Your task to perform on an android device: Show the shopping cart on amazon. Add "alienware area 51" to the cart on amazon, then select checkout. Image 0: 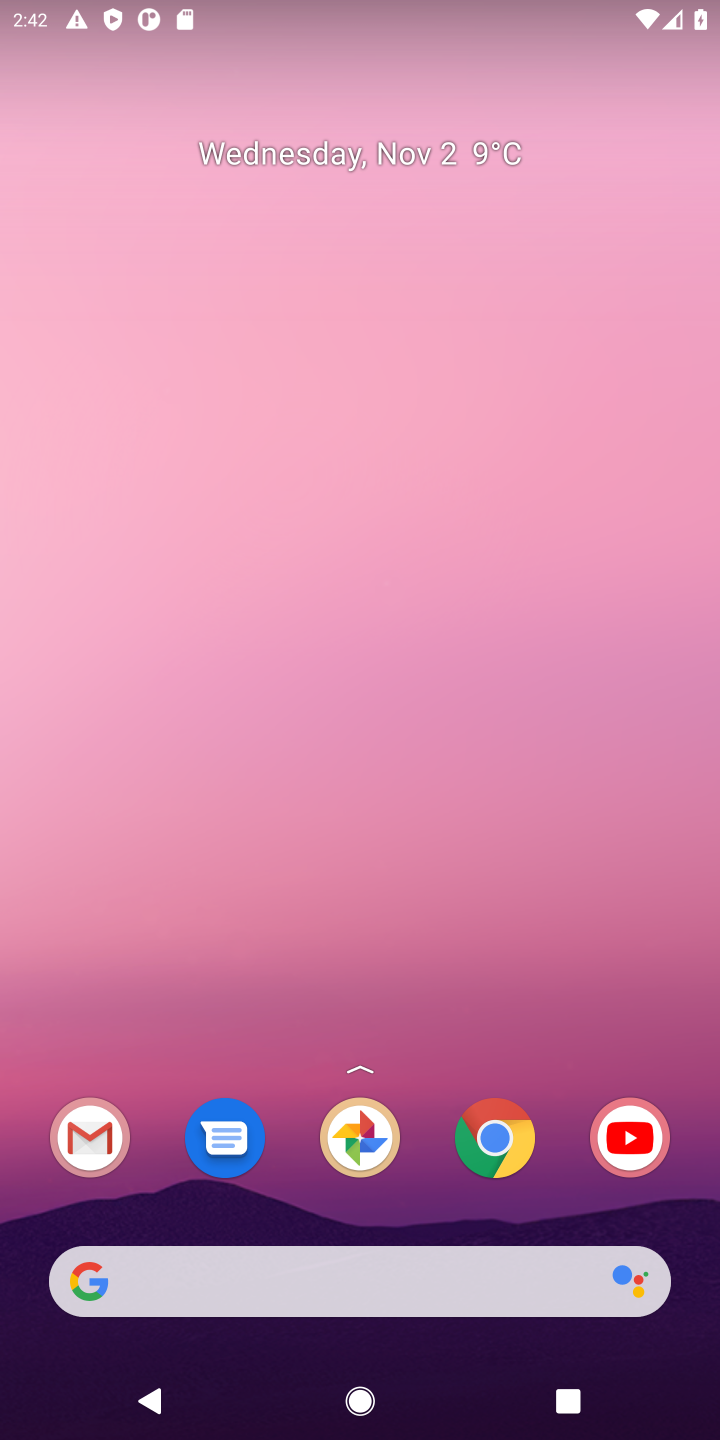
Step 0: click (501, 1147)
Your task to perform on an android device: Show the shopping cart on amazon. Add "alienware area 51" to the cart on amazon, then select checkout. Image 1: 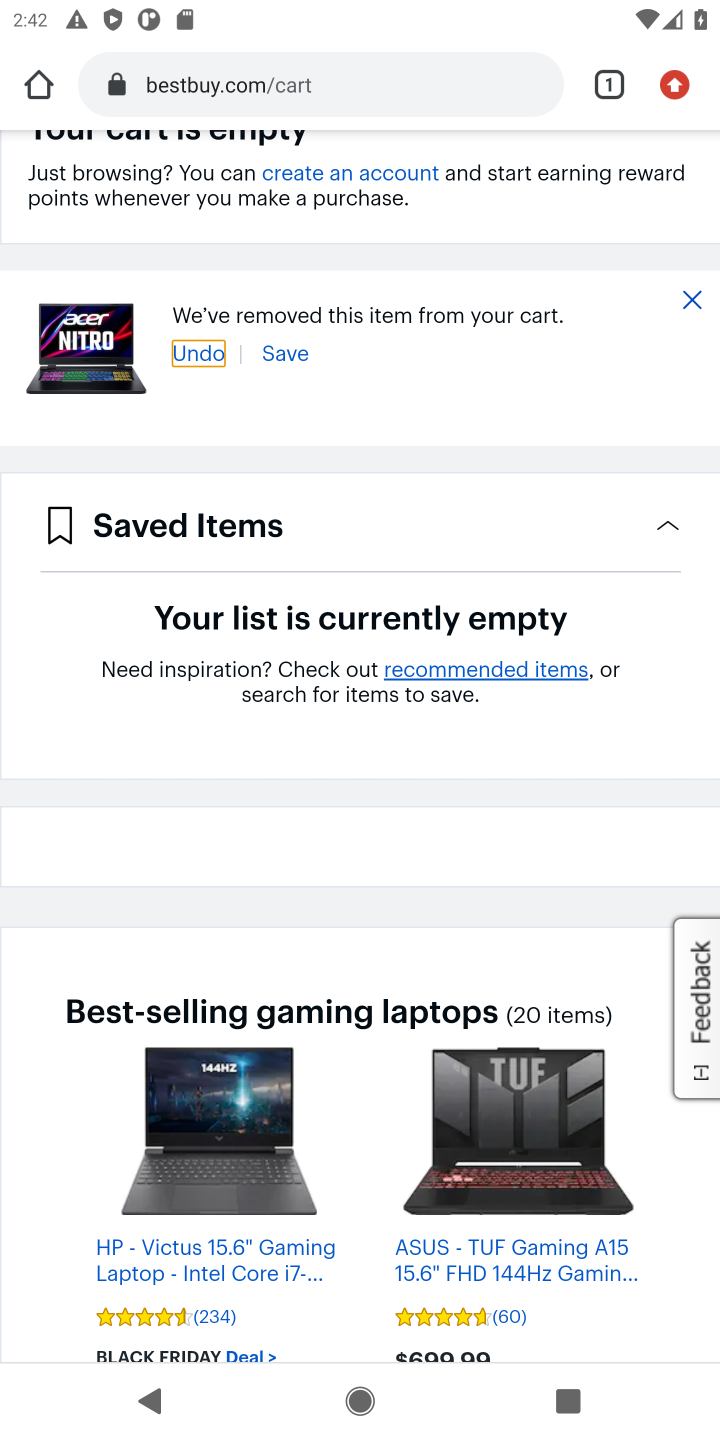
Step 1: click (300, 86)
Your task to perform on an android device: Show the shopping cart on amazon. Add "alienware area 51" to the cart on amazon, then select checkout. Image 2: 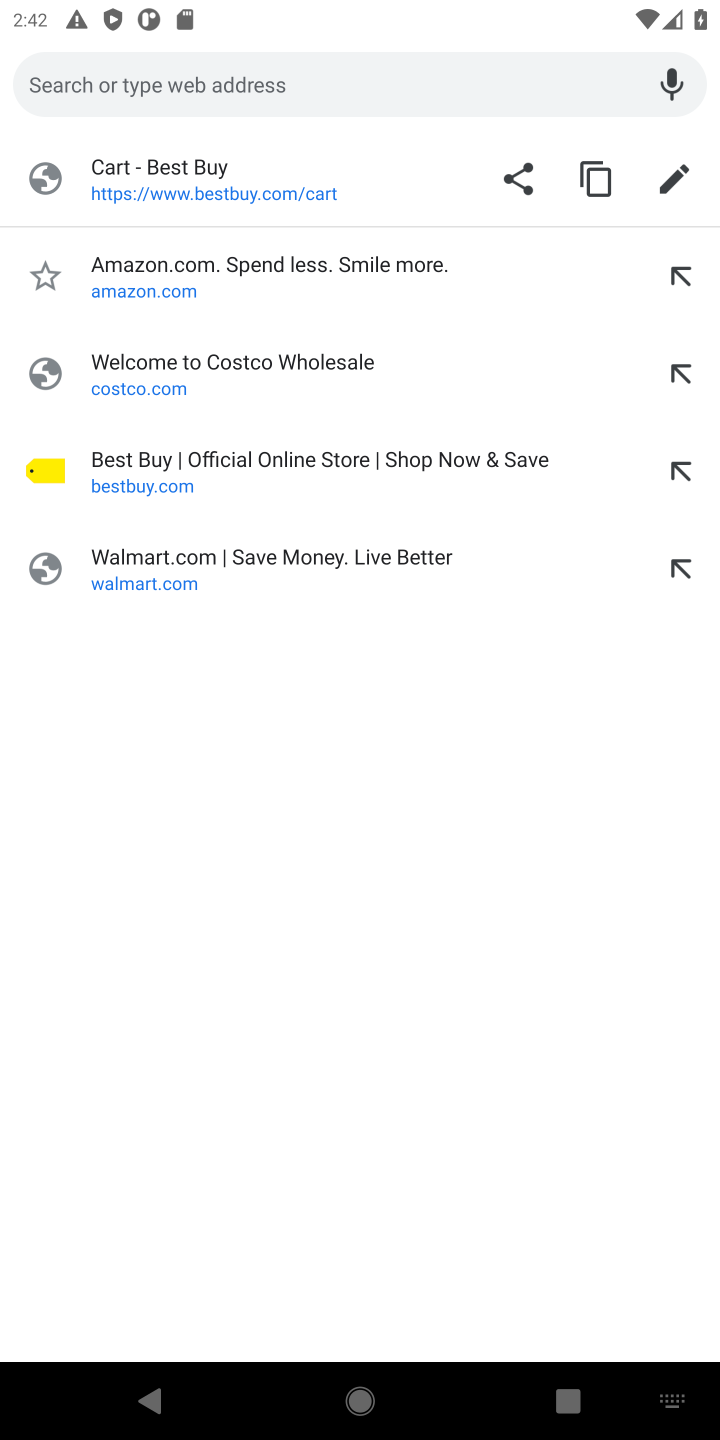
Step 2: type "amazon"
Your task to perform on an android device: Show the shopping cart on amazon. Add "alienware area 51" to the cart on amazon, then select checkout. Image 3: 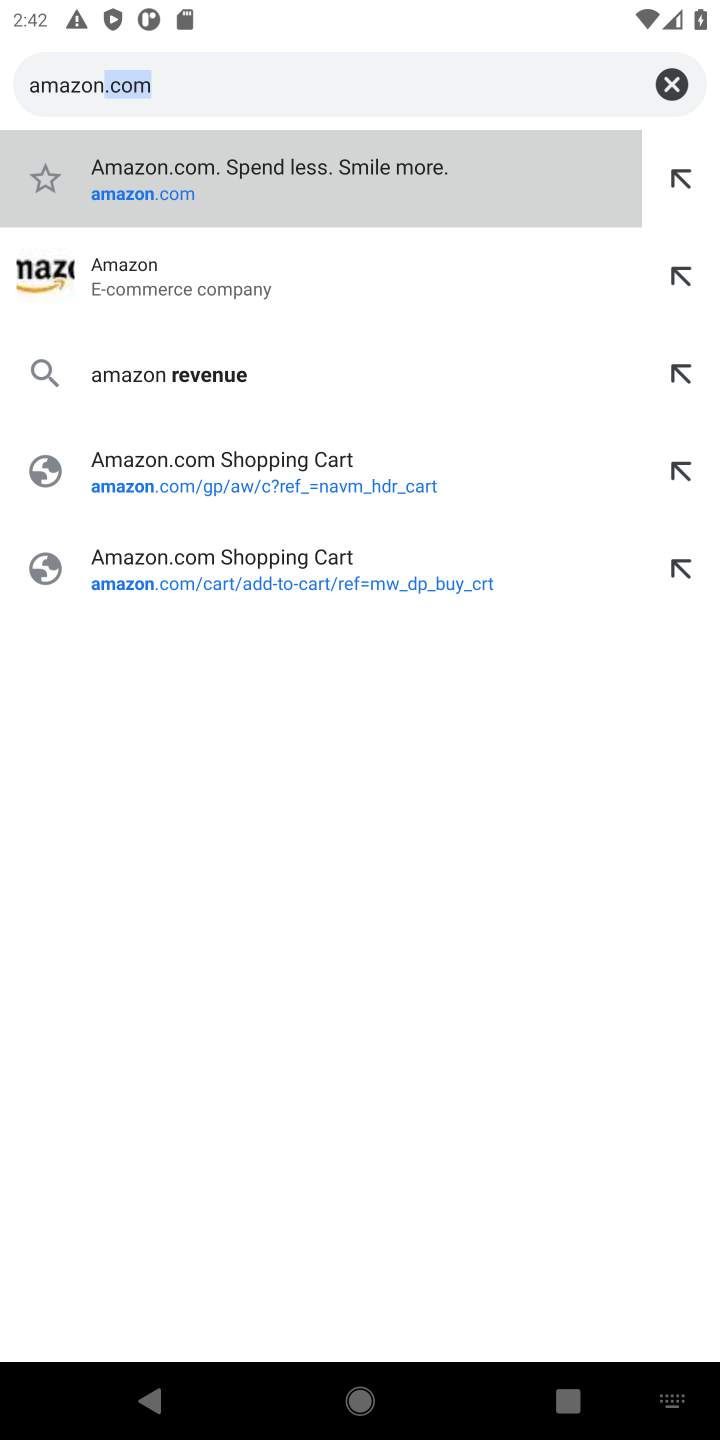
Step 3: click (136, 155)
Your task to perform on an android device: Show the shopping cart on amazon. Add "alienware area 51" to the cart on amazon, then select checkout. Image 4: 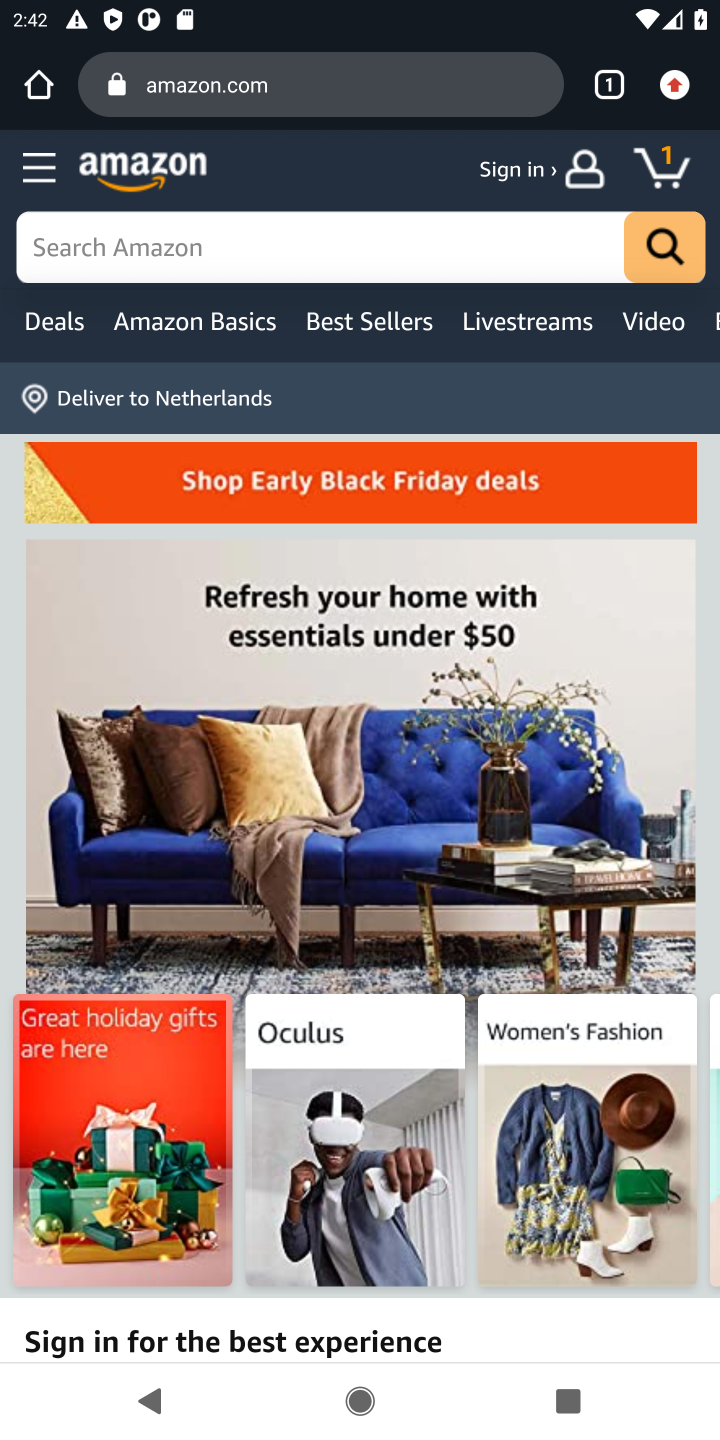
Step 4: click (666, 174)
Your task to perform on an android device: Show the shopping cart on amazon. Add "alienware area 51" to the cart on amazon, then select checkout. Image 5: 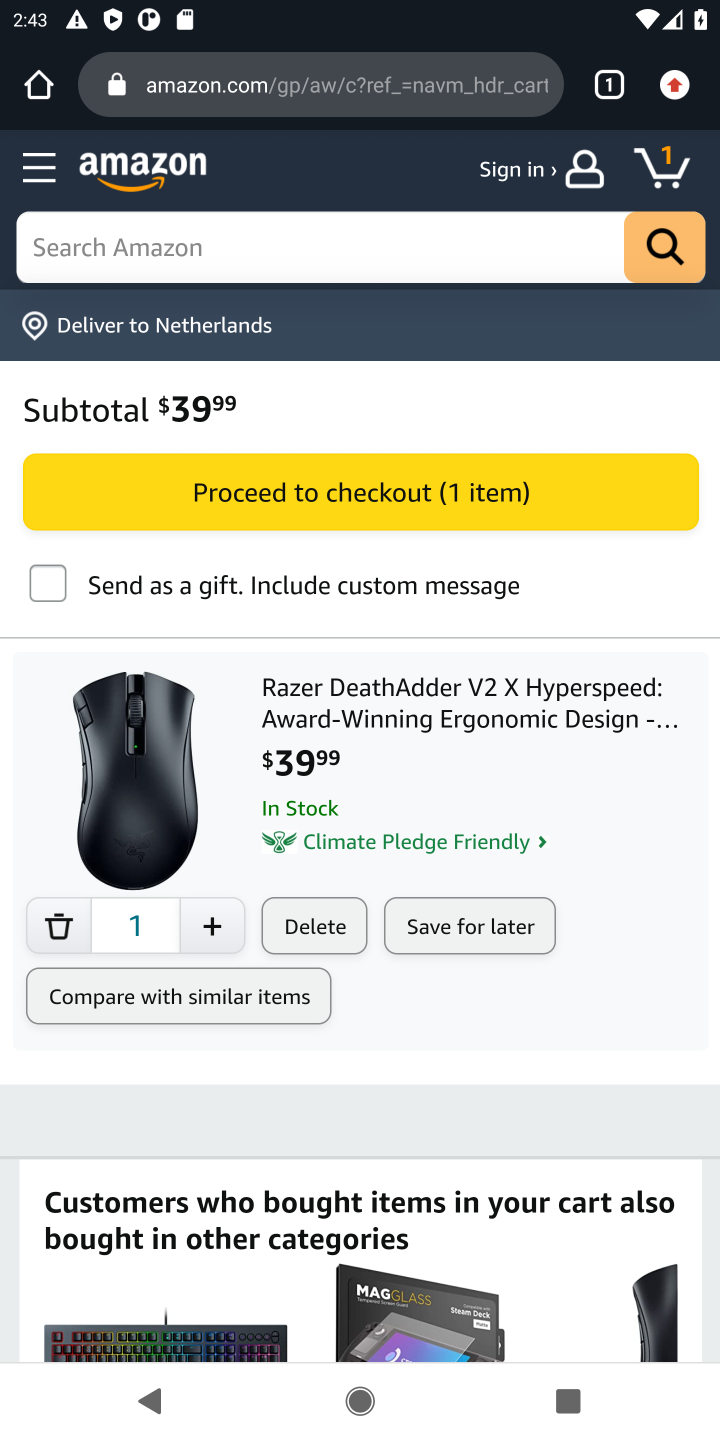
Step 5: click (129, 249)
Your task to perform on an android device: Show the shopping cart on amazon. Add "alienware area 51" to the cart on amazon, then select checkout. Image 6: 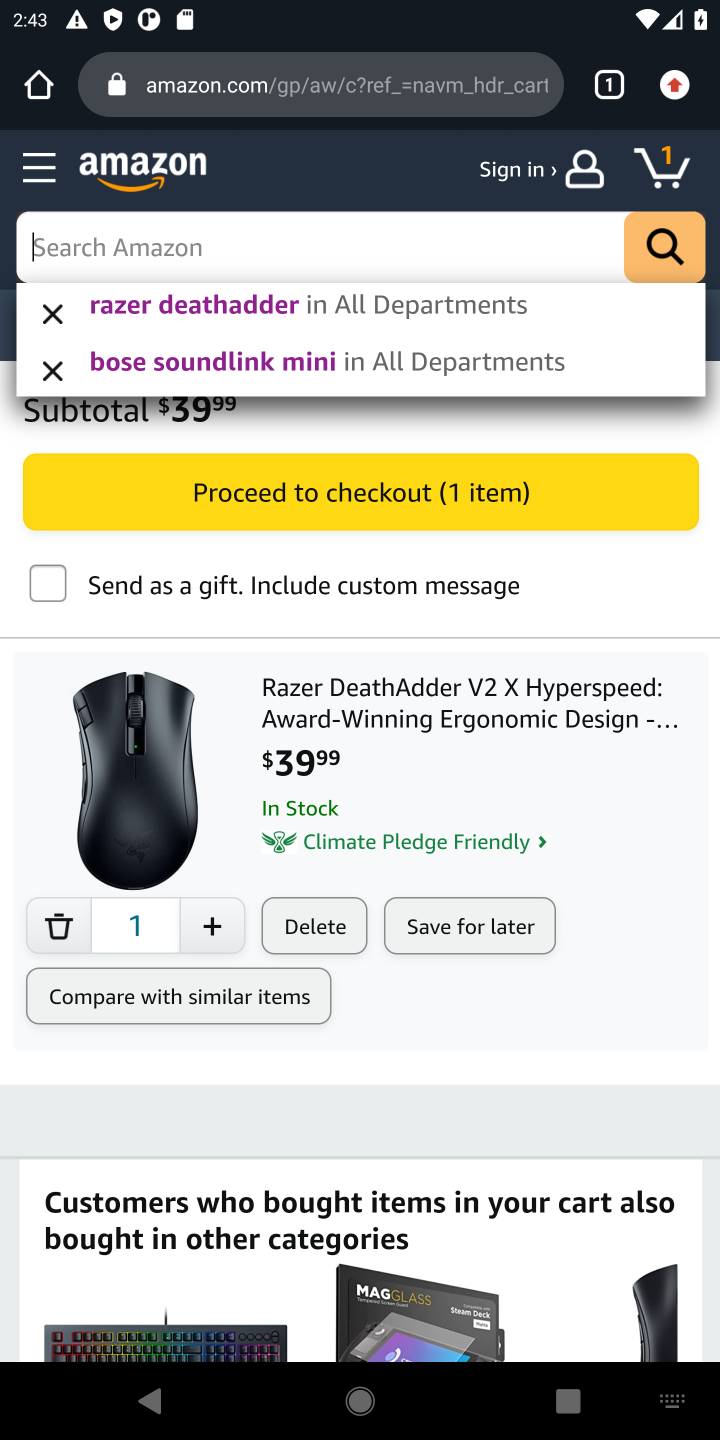
Step 6: type "alienware area 51"
Your task to perform on an android device: Show the shopping cart on amazon. Add "alienware area 51" to the cart on amazon, then select checkout. Image 7: 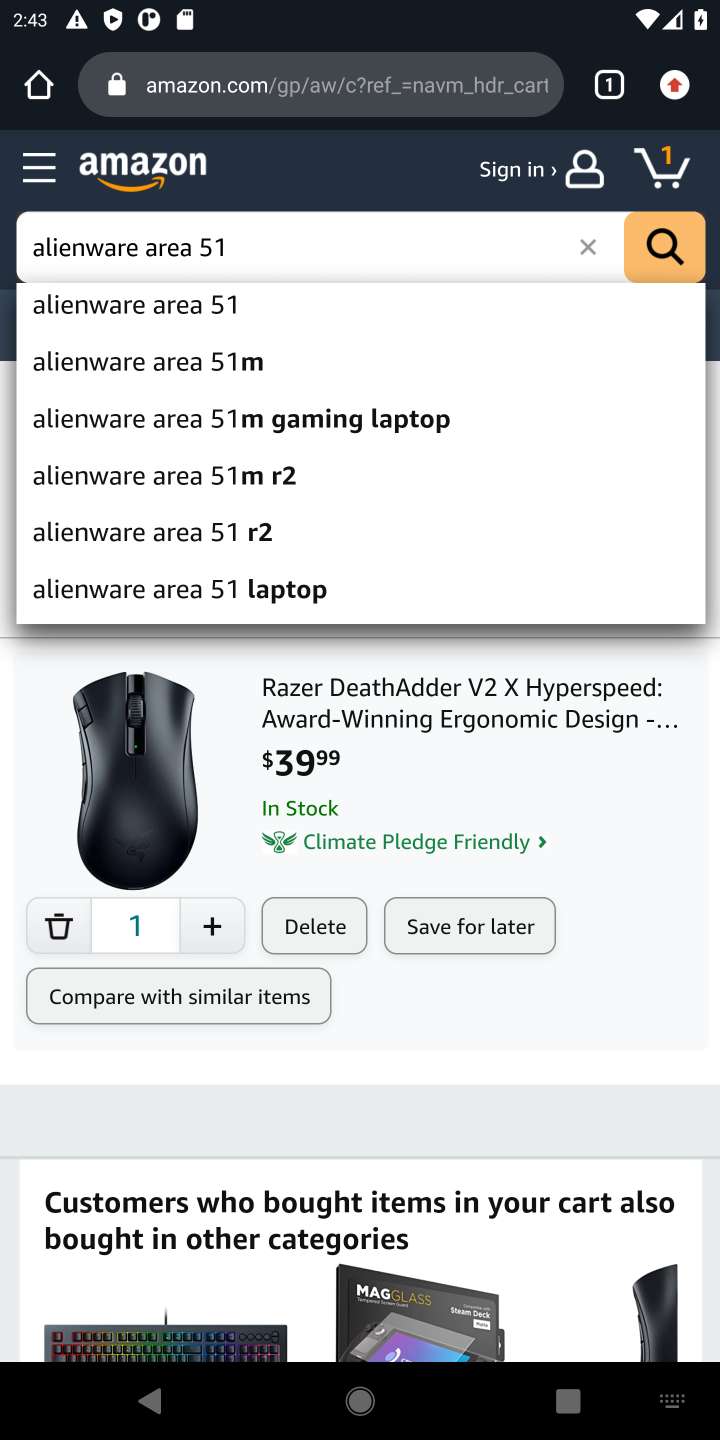
Step 7: click (654, 263)
Your task to perform on an android device: Show the shopping cart on amazon. Add "alienware area 51" to the cart on amazon, then select checkout. Image 8: 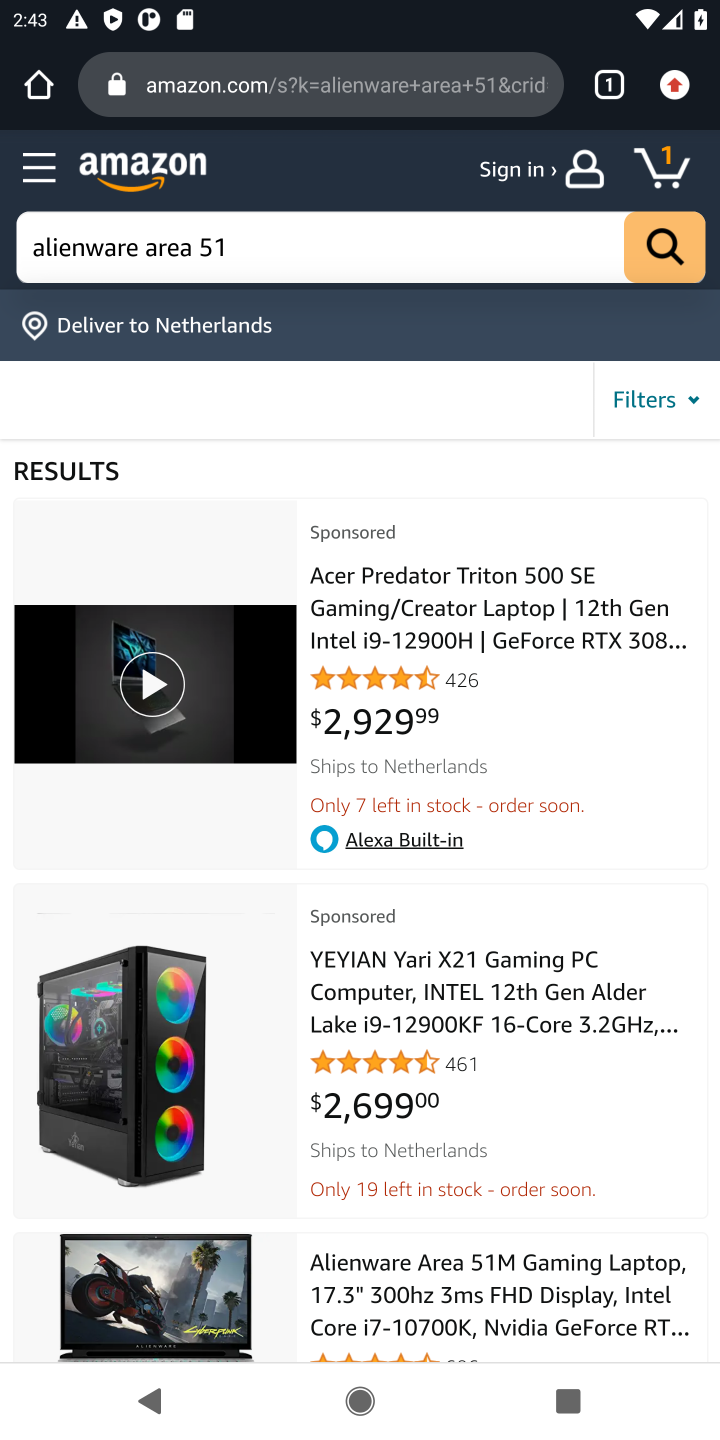
Step 8: click (344, 1294)
Your task to perform on an android device: Show the shopping cart on amazon. Add "alienware area 51" to the cart on amazon, then select checkout. Image 9: 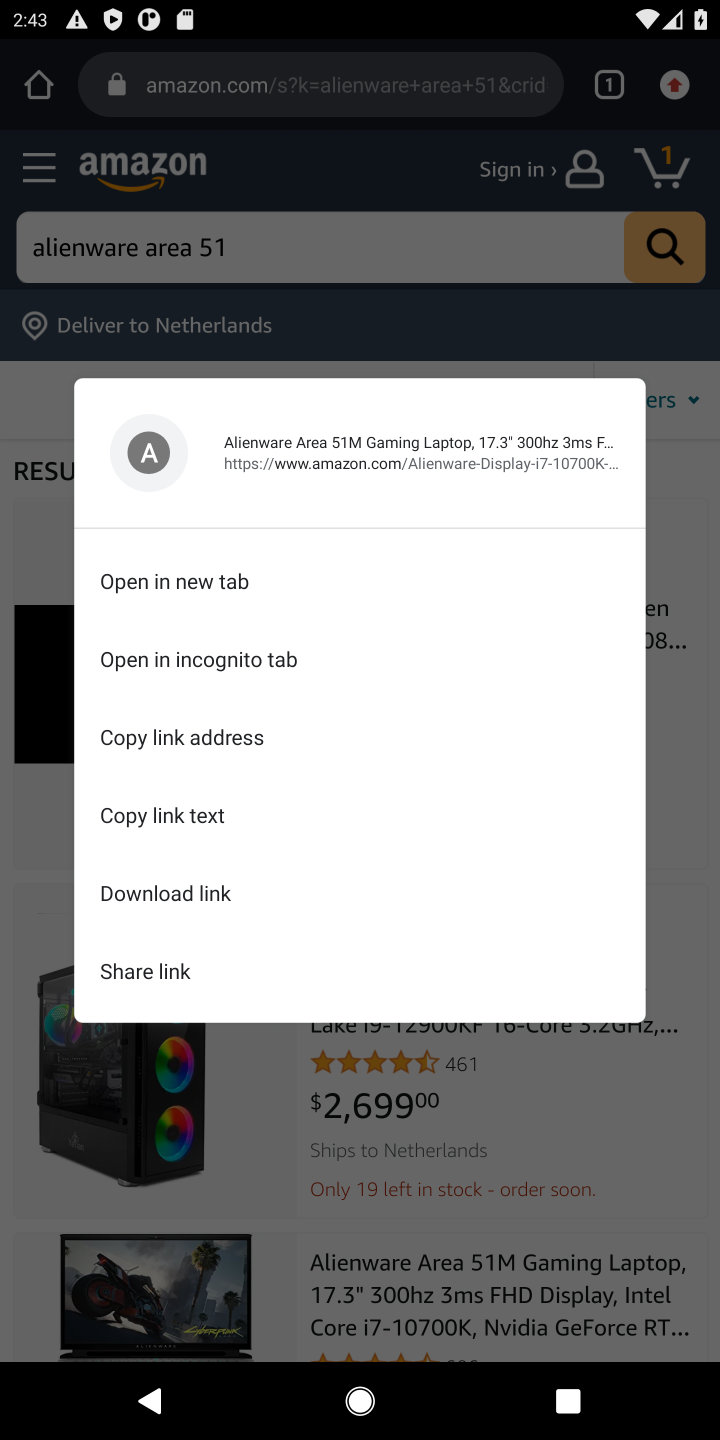
Step 9: press back button
Your task to perform on an android device: Show the shopping cart on amazon. Add "alienware area 51" to the cart on amazon, then select checkout. Image 10: 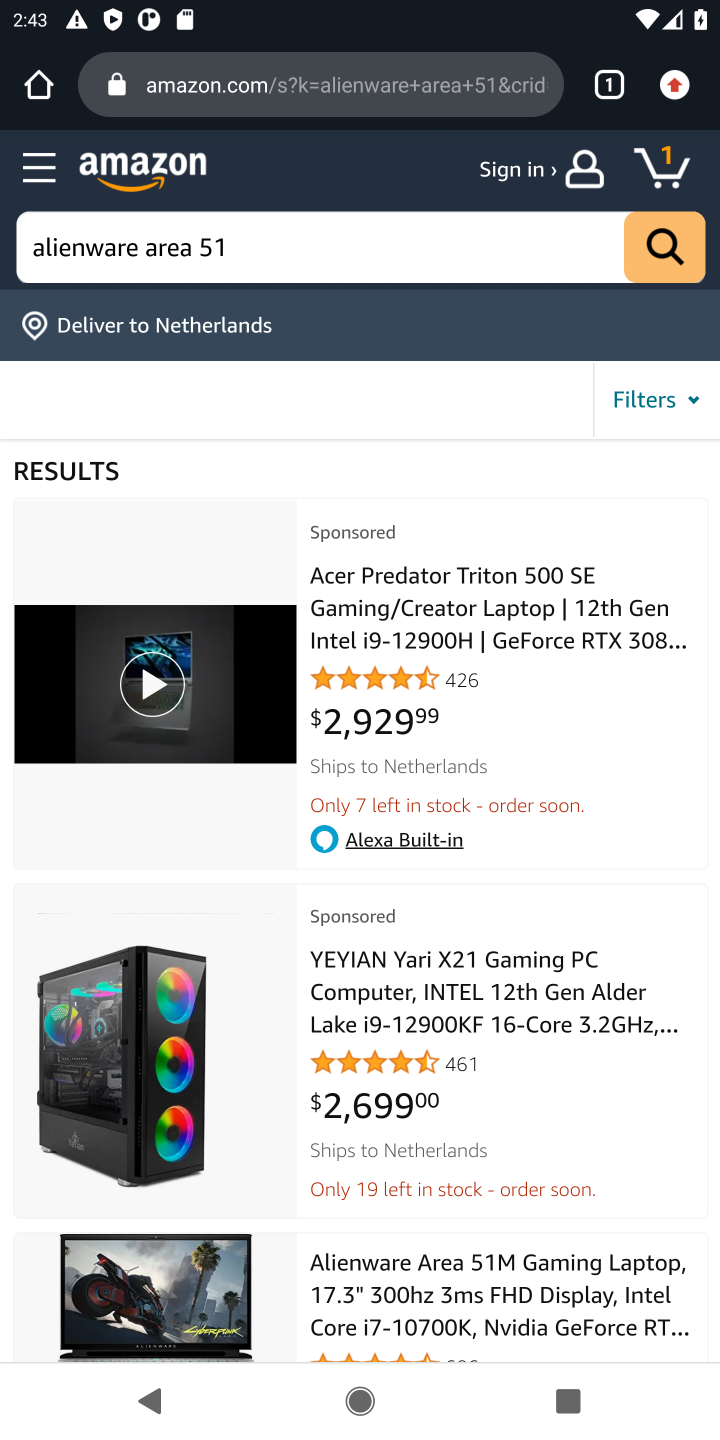
Step 10: click (486, 1303)
Your task to perform on an android device: Show the shopping cart on amazon. Add "alienware area 51" to the cart on amazon, then select checkout. Image 11: 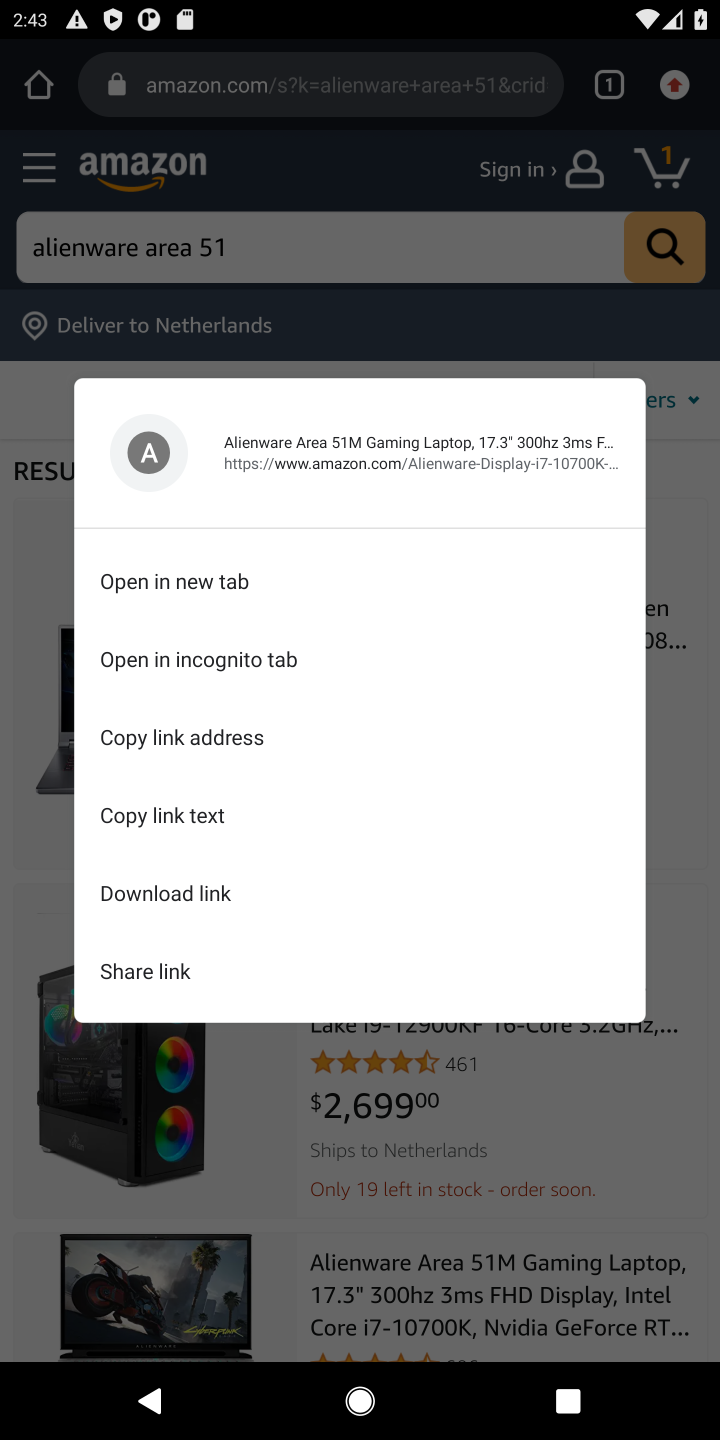
Step 11: press back button
Your task to perform on an android device: Show the shopping cart on amazon. Add "alienware area 51" to the cart on amazon, then select checkout. Image 12: 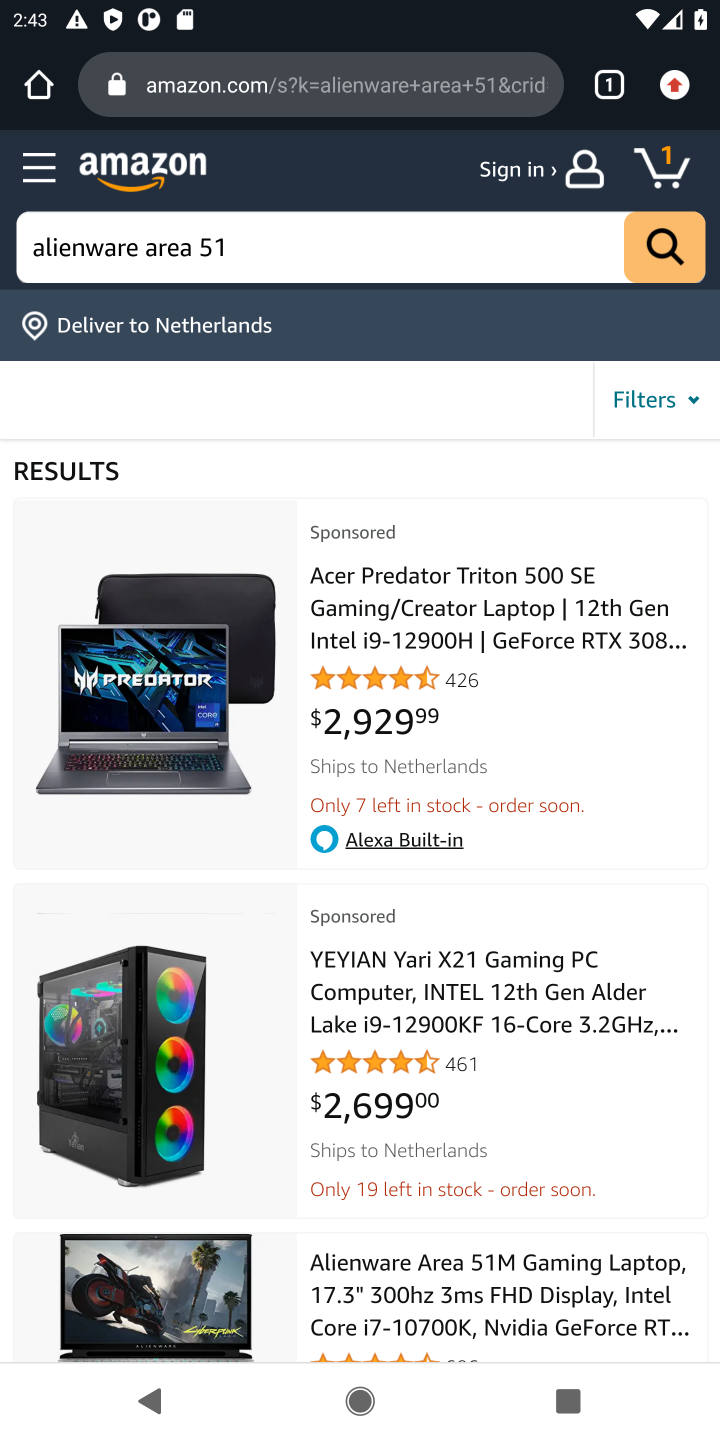
Step 12: drag from (434, 1238) to (574, 378)
Your task to perform on an android device: Show the shopping cart on amazon. Add "alienware area 51" to the cart on amazon, then select checkout. Image 13: 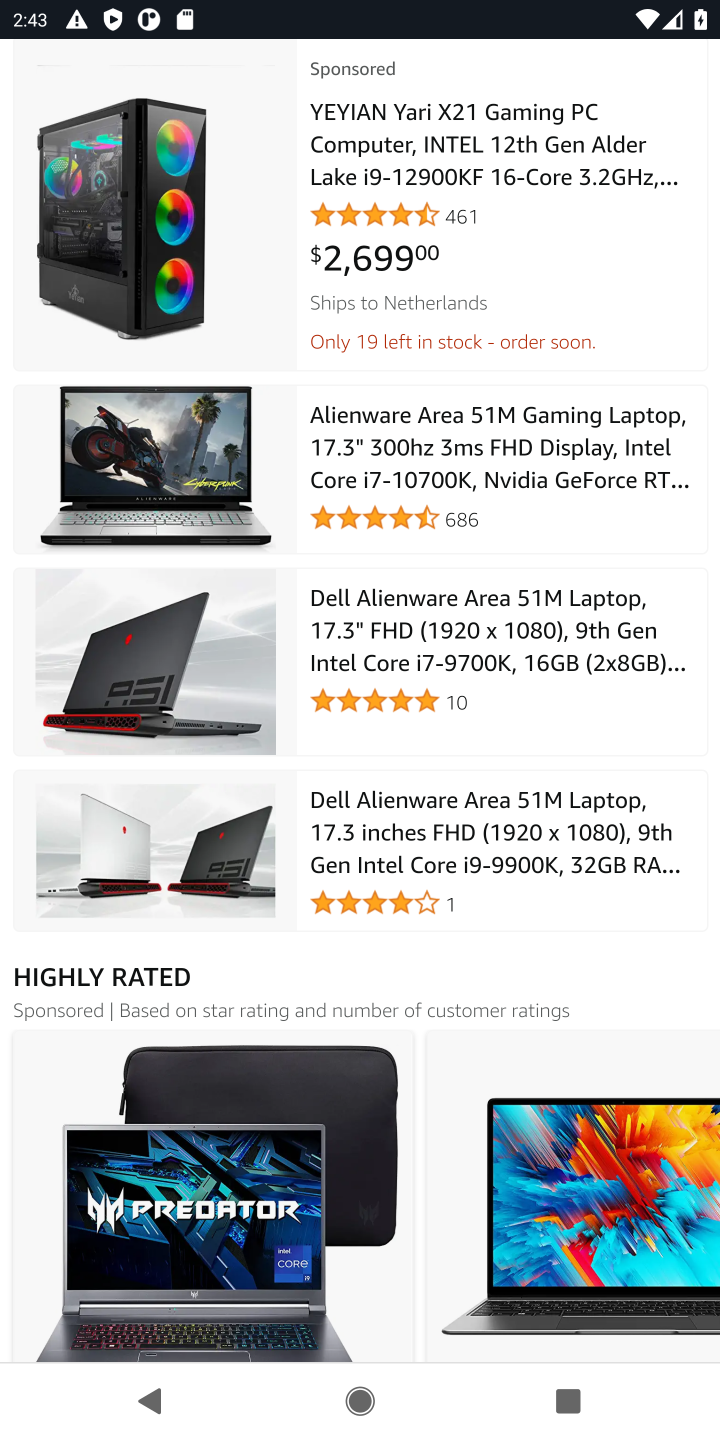
Step 13: click (489, 443)
Your task to perform on an android device: Show the shopping cart on amazon. Add "alienware area 51" to the cart on amazon, then select checkout. Image 14: 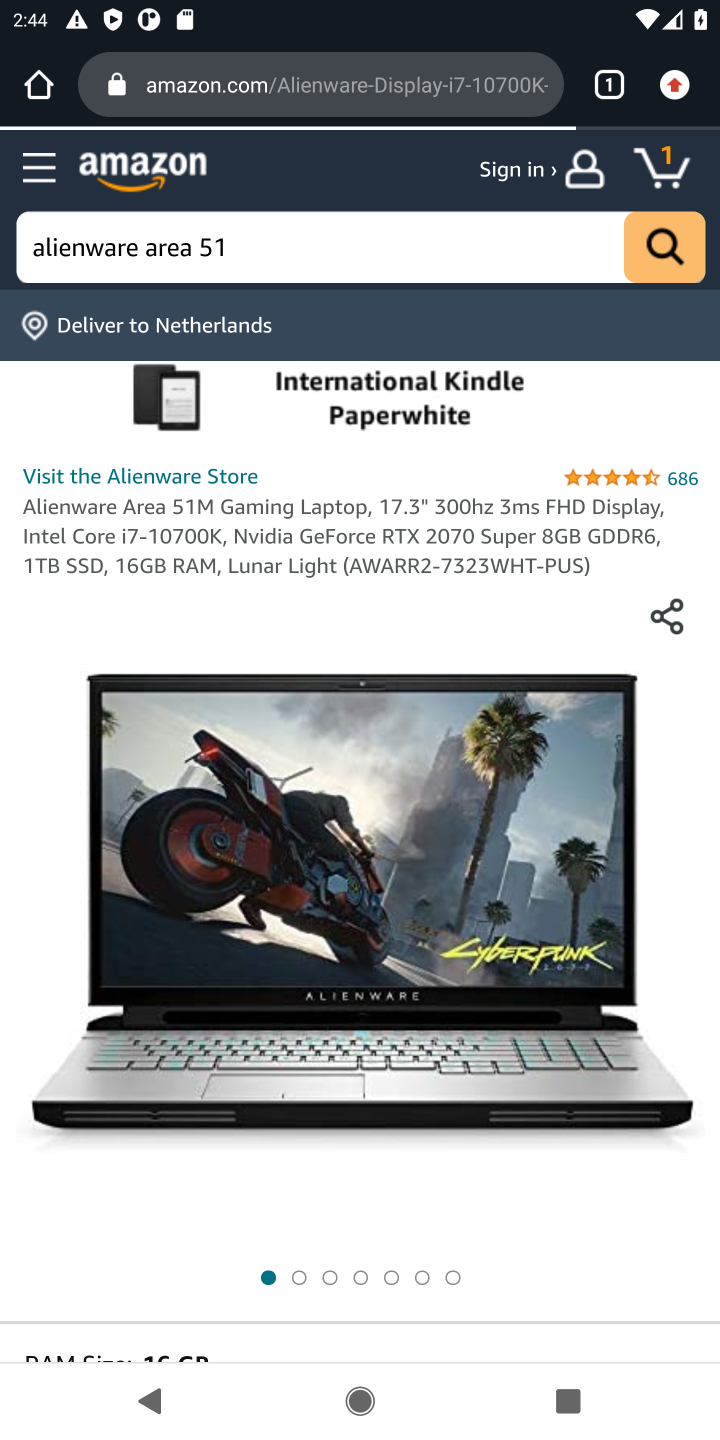
Step 14: drag from (484, 1314) to (373, 317)
Your task to perform on an android device: Show the shopping cart on amazon. Add "alienware area 51" to the cart on amazon, then select checkout. Image 15: 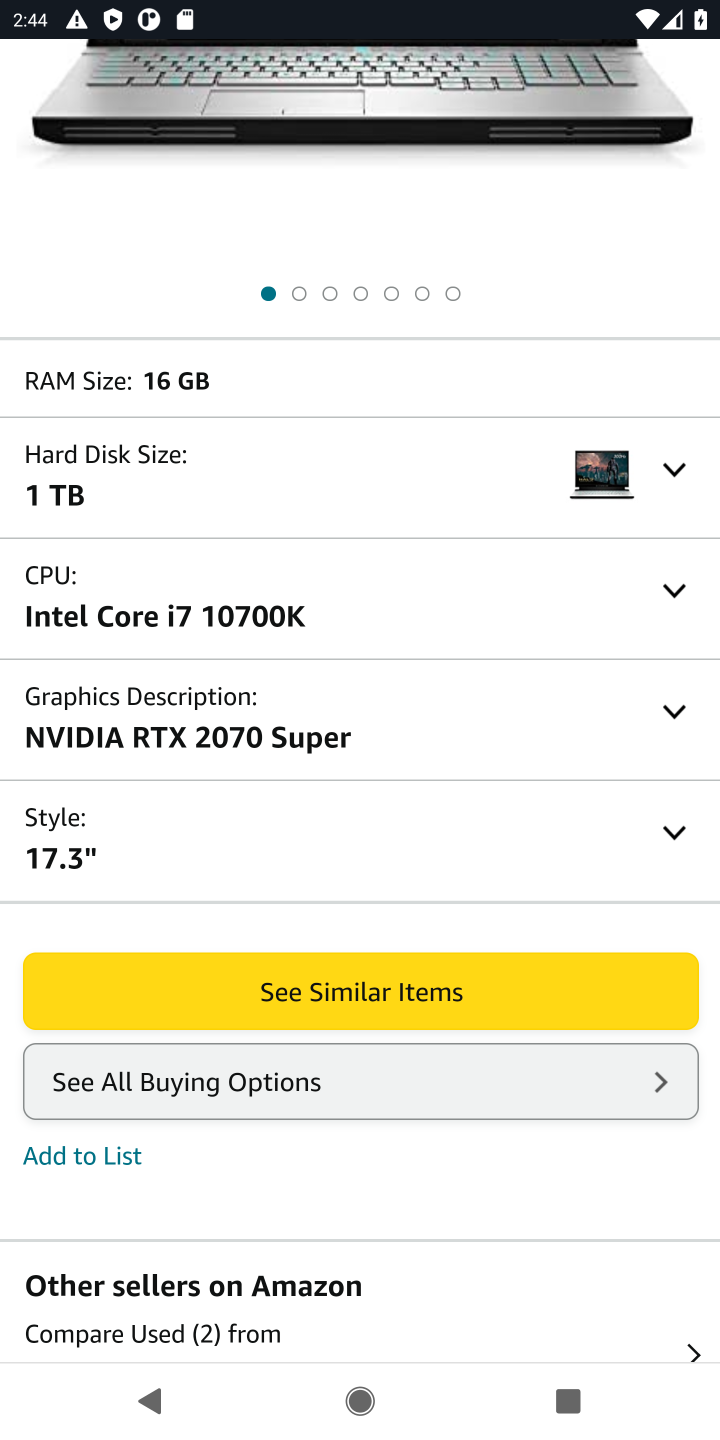
Step 15: click (393, 998)
Your task to perform on an android device: Show the shopping cart on amazon. Add "alienware area 51" to the cart on amazon, then select checkout. Image 16: 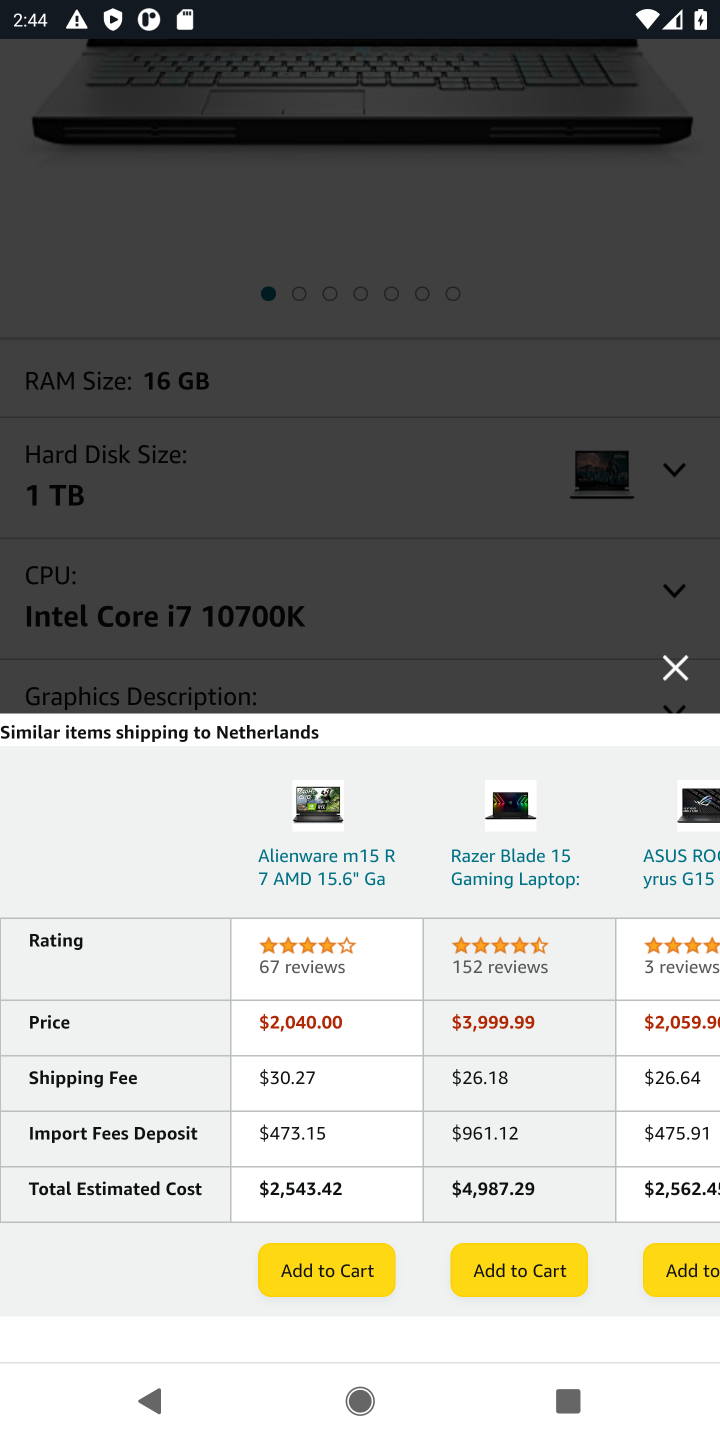
Step 16: click (314, 1341)
Your task to perform on an android device: Show the shopping cart on amazon. Add "alienware area 51" to the cart on amazon, then select checkout. Image 17: 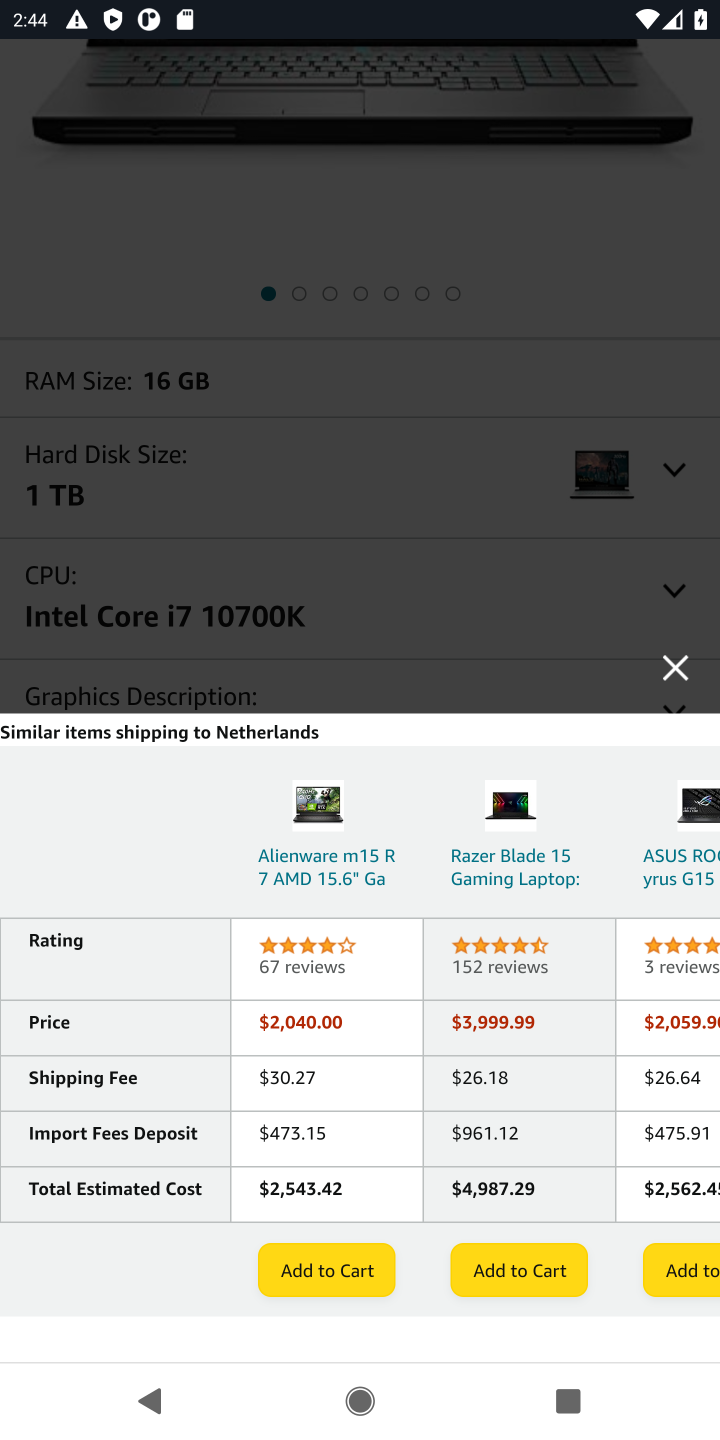
Step 17: click (328, 1269)
Your task to perform on an android device: Show the shopping cart on amazon. Add "alienware area 51" to the cart on amazon, then select checkout. Image 18: 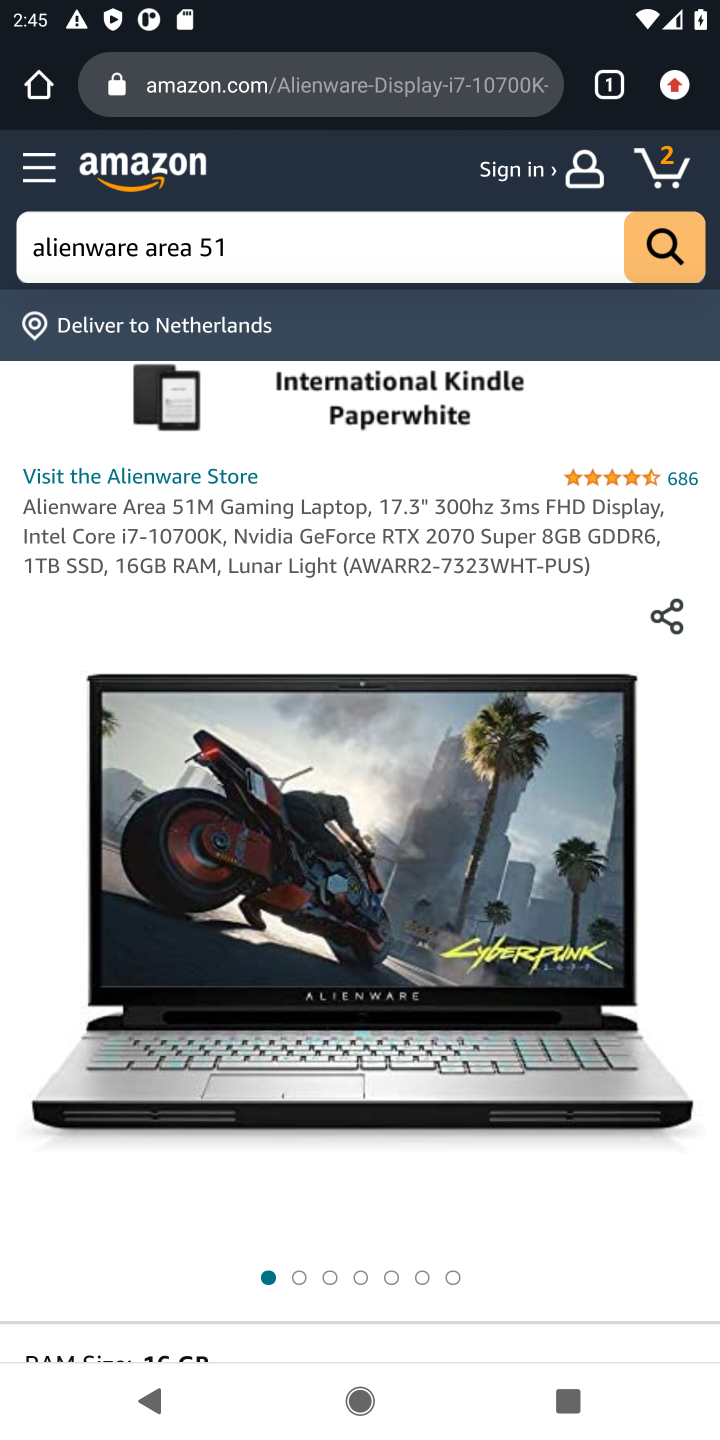
Step 18: click (675, 155)
Your task to perform on an android device: Show the shopping cart on amazon. Add "alienware area 51" to the cart on amazon, then select checkout. Image 19: 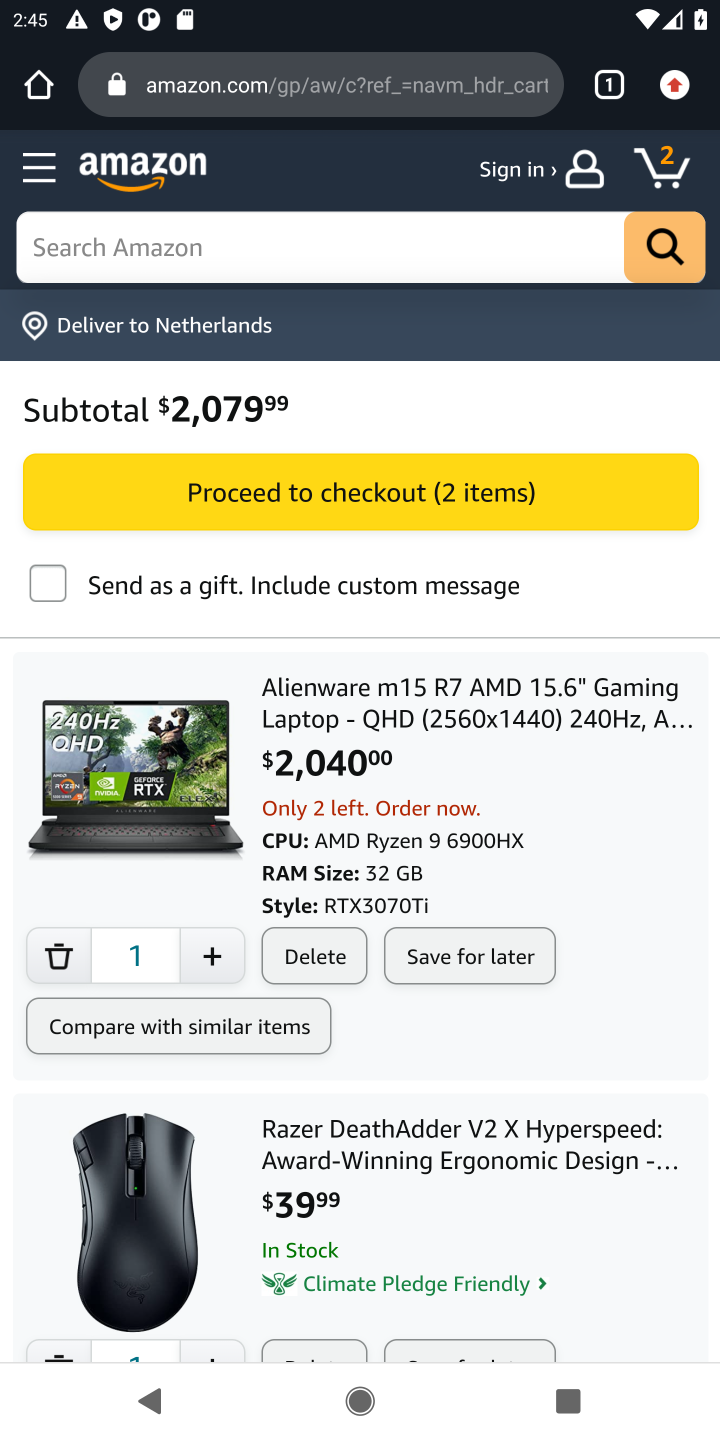
Step 19: click (183, 469)
Your task to perform on an android device: Show the shopping cart on amazon. Add "alienware area 51" to the cart on amazon, then select checkout. Image 20: 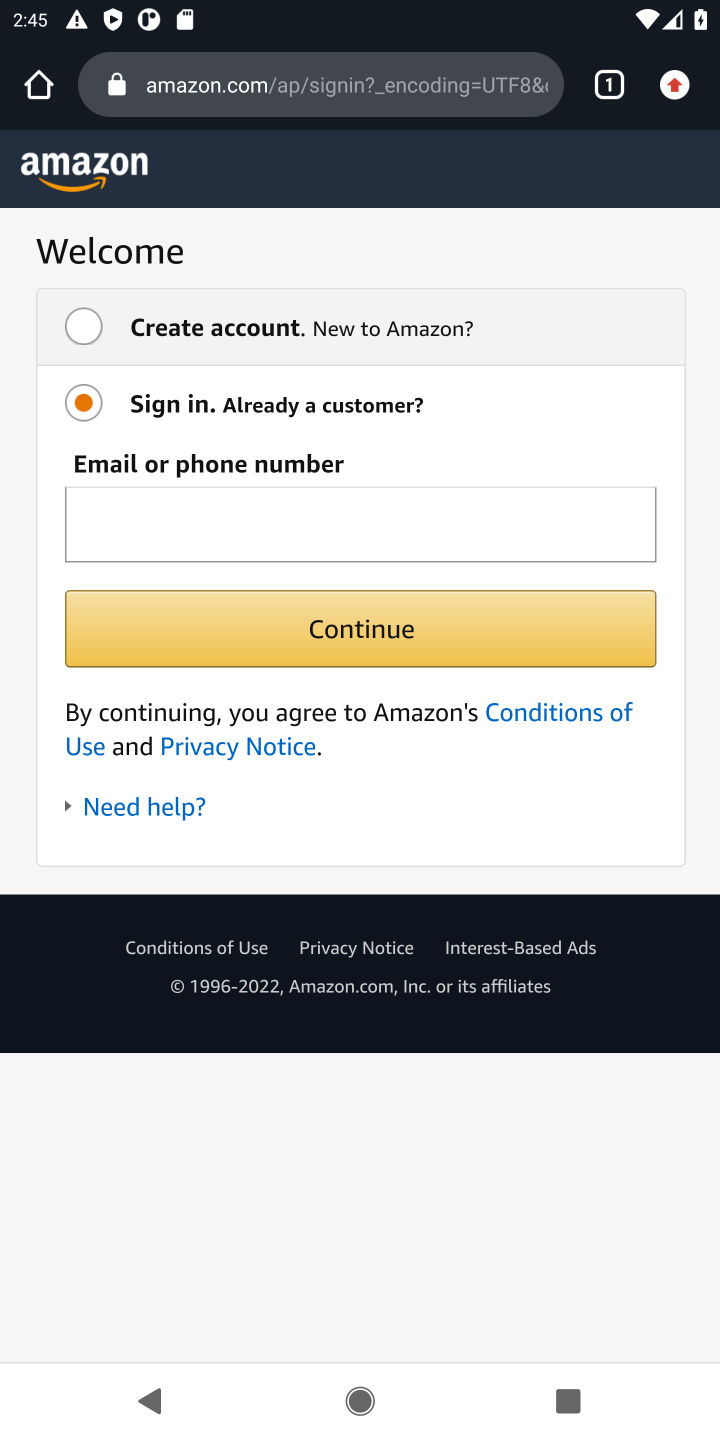
Step 20: task complete